Your task to perform on an android device: change alarm snooze length Image 0: 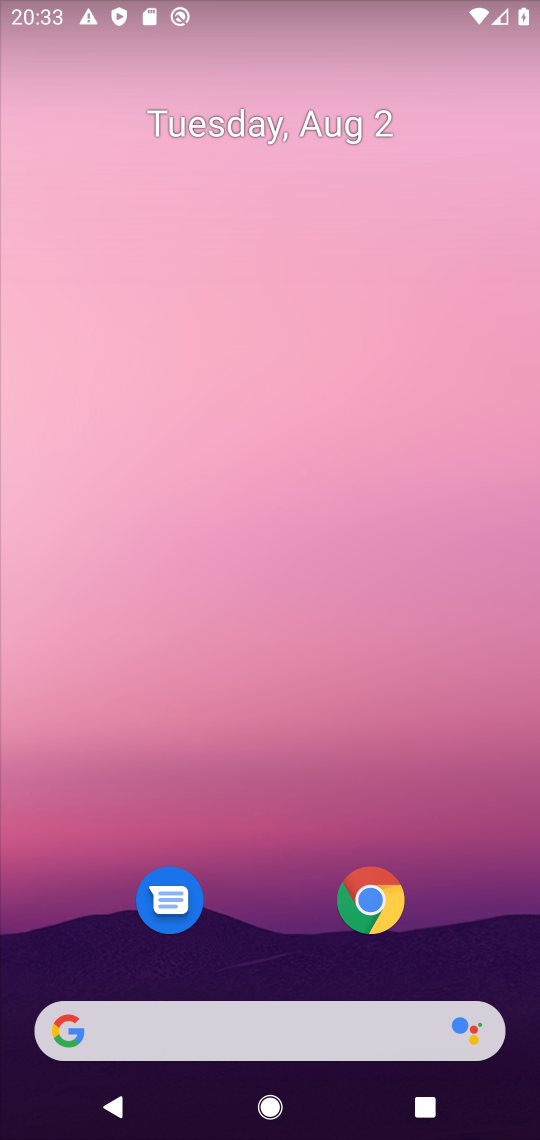
Step 0: press home button
Your task to perform on an android device: change alarm snooze length Image 1: 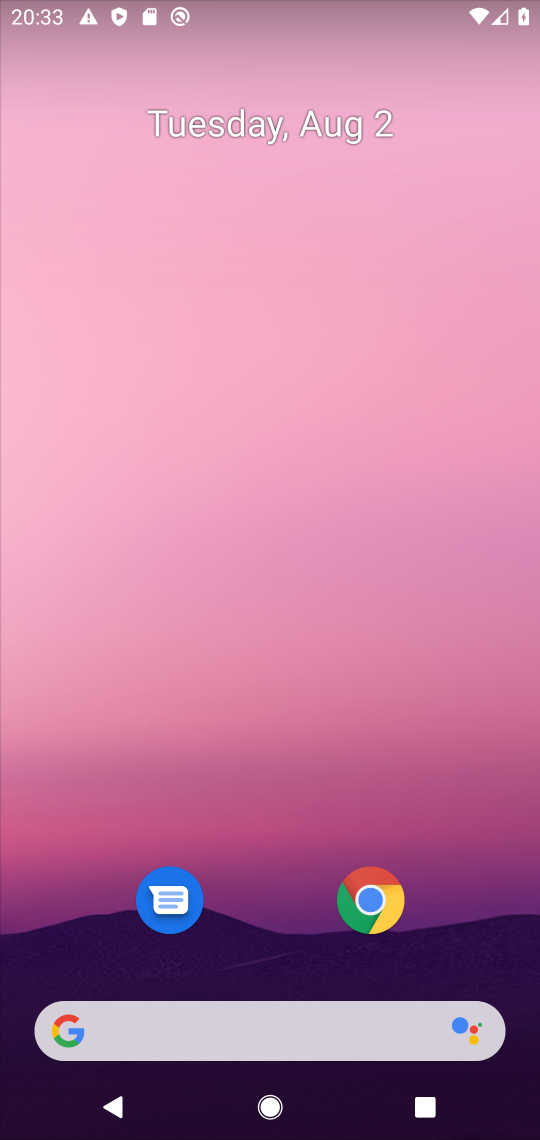
Step 1: drag from (313, 830) to (321, 0)
Your task to perform on an android device: change alarm snooze length Image 2: 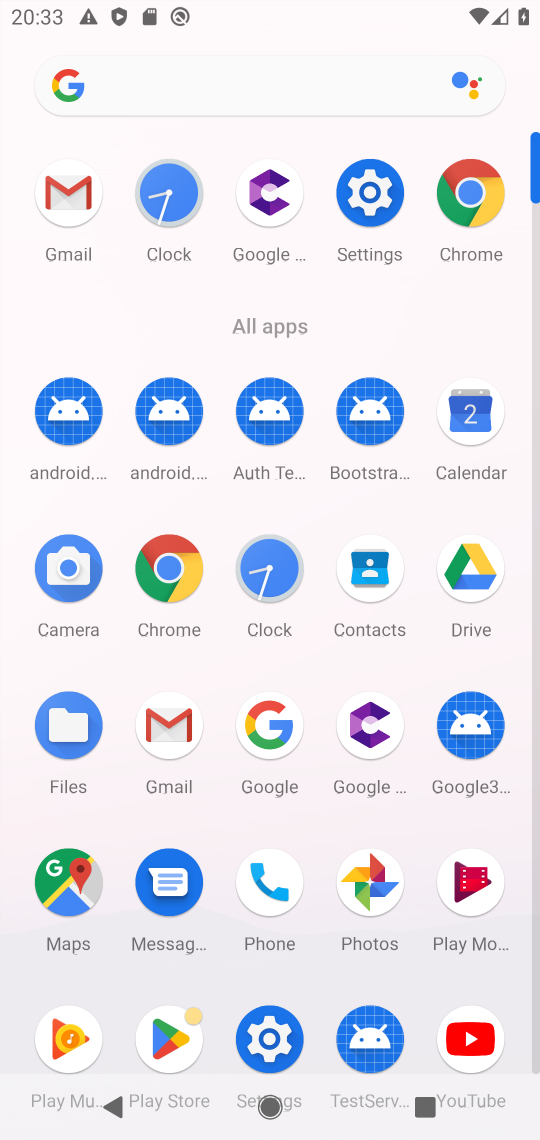
Step 2: click (179, 197)
Your task to perform on an android device: change alarm snooze length Image 3: 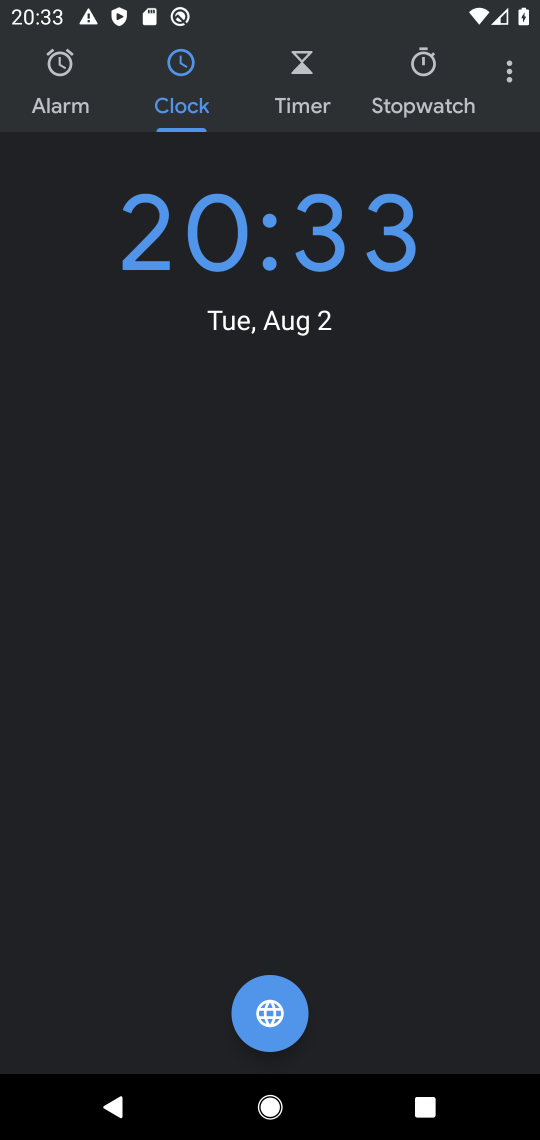
Step 3: click (505, 76)
Your task to perform on an android device: change alarm snooze length Image 4: 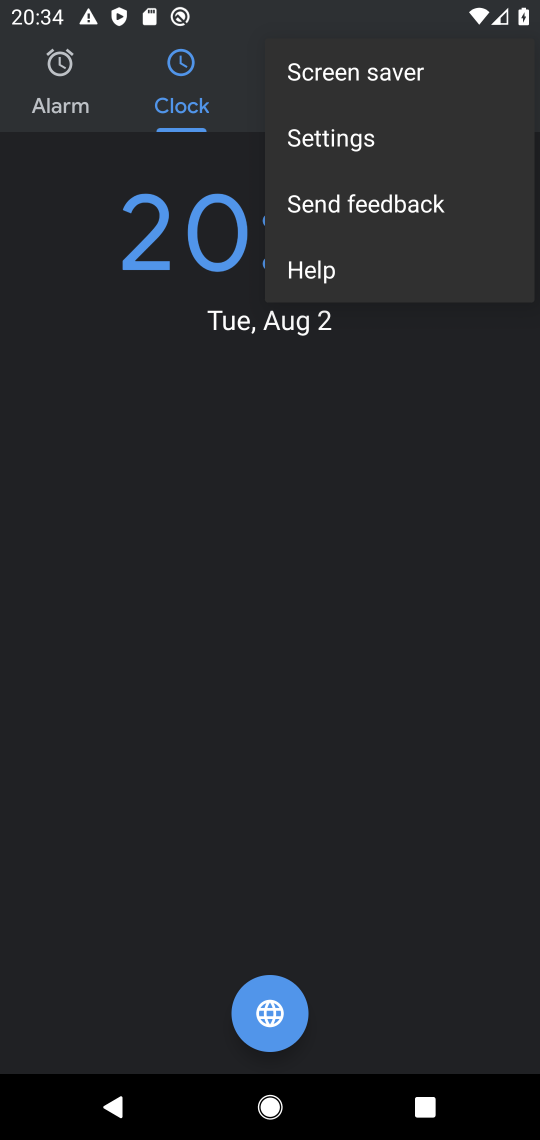
Step 4: click (347, 144)
Your task to perform on an android device: change alarm snooze length Image 5: 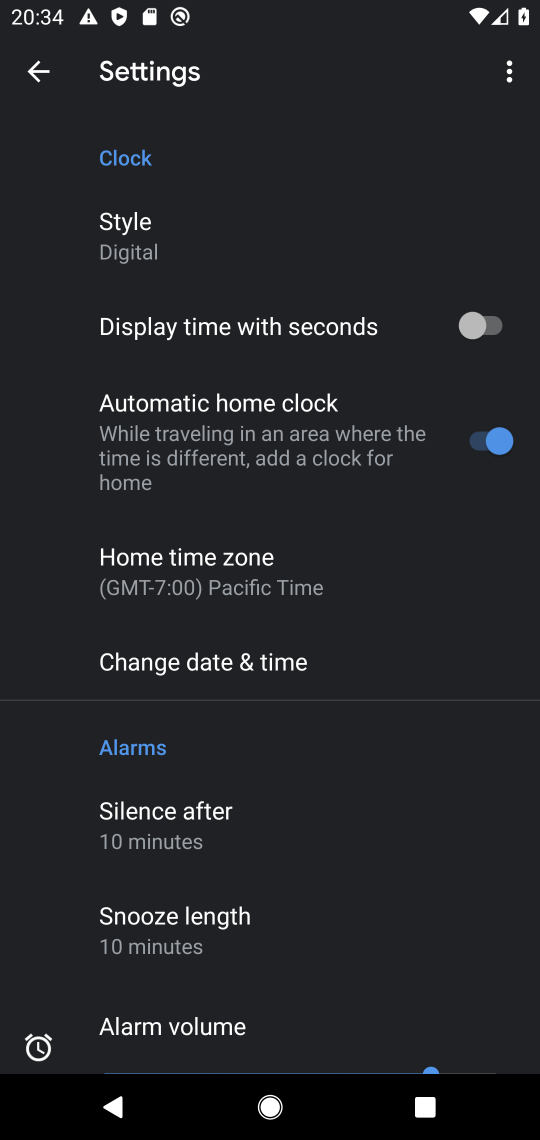
Step 5: click (246, 921)
Your task to perform on an android device: change alarm snooze length Image 6: 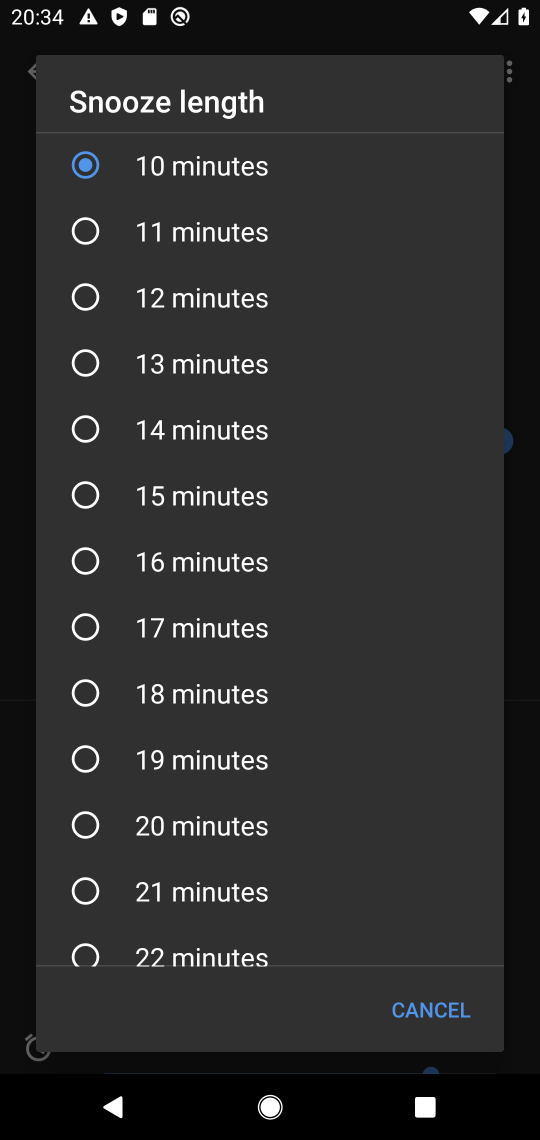
Step 6: click (91, 292)
Your task to perform on an android device: change alarm snooze length Image 7: 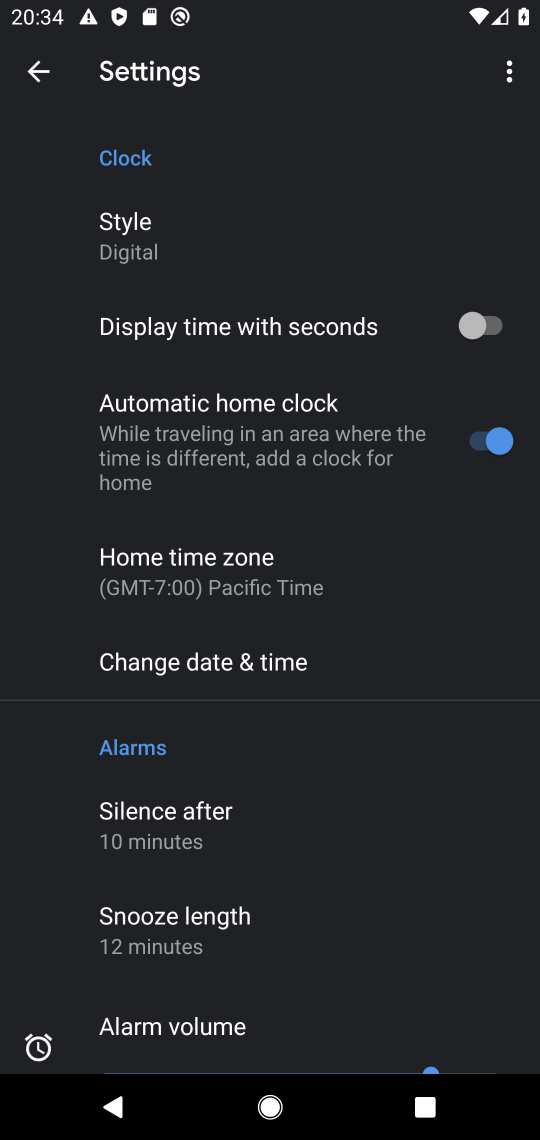
Step 7: task complete